Your task to perform on an android device: Show me recent news Image 0: 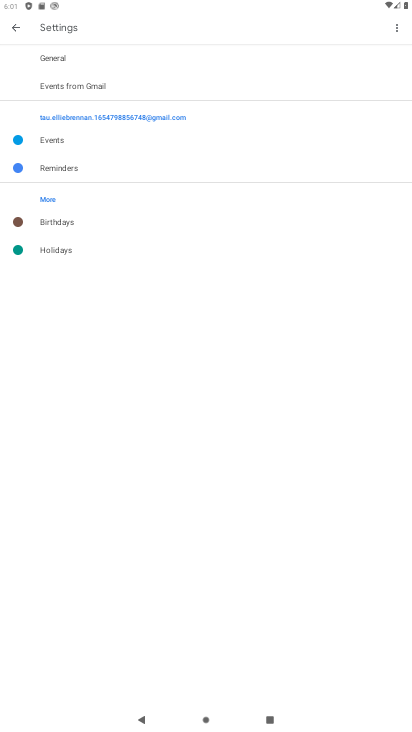
Step 0: press home button
Your task to perform on an android device: Show me recent news Image 1: 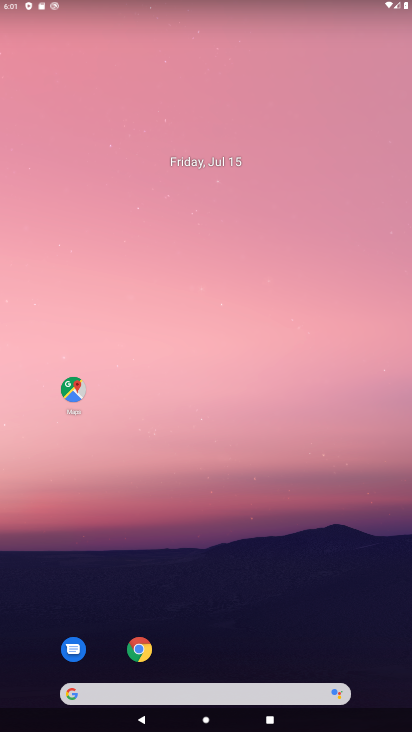
Step 1: click (71, 695)
Your task to perform on an android device: Show me recent news Image 2: 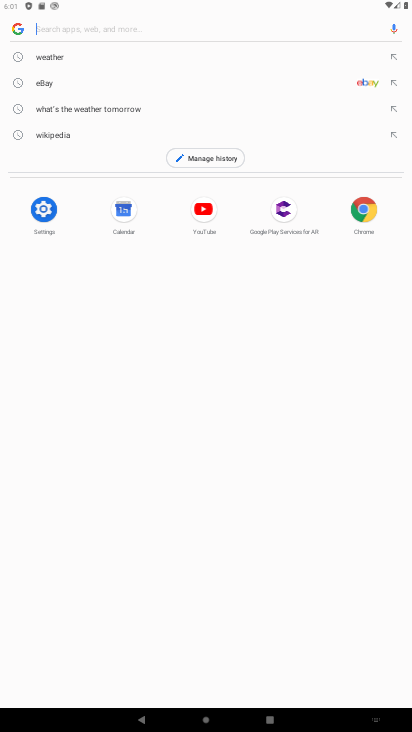
Step 2: type "recent news"
Your task to perform on an android device: Show me recent news Image 3: 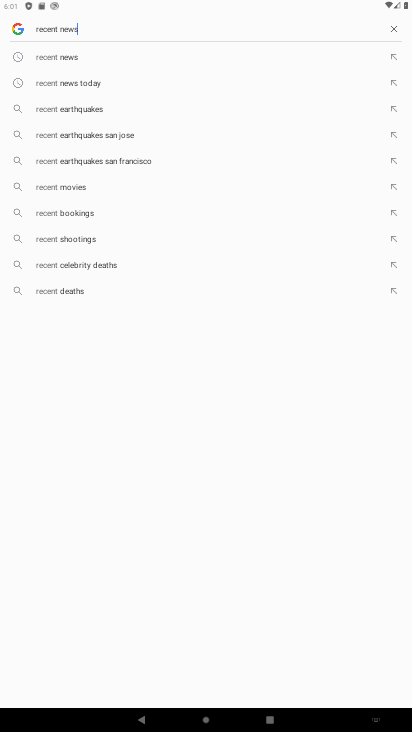
Step 3: press enter
Your task to perform on an android device: Show me recent news Image 4: 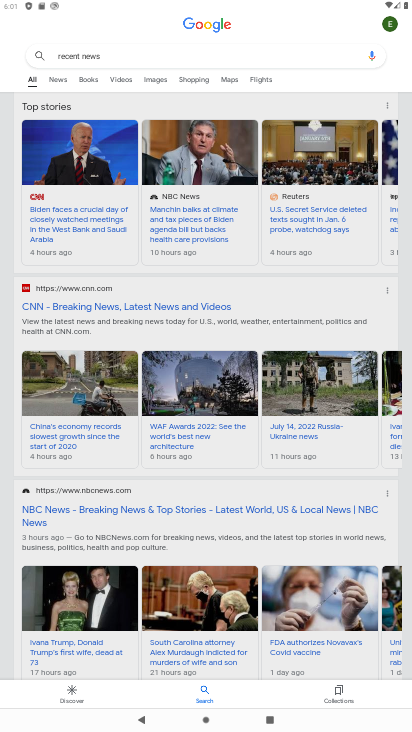
Step 4: task complete